Your task to perform on an android device: Show me productivity apps on the Play Store Image 0: 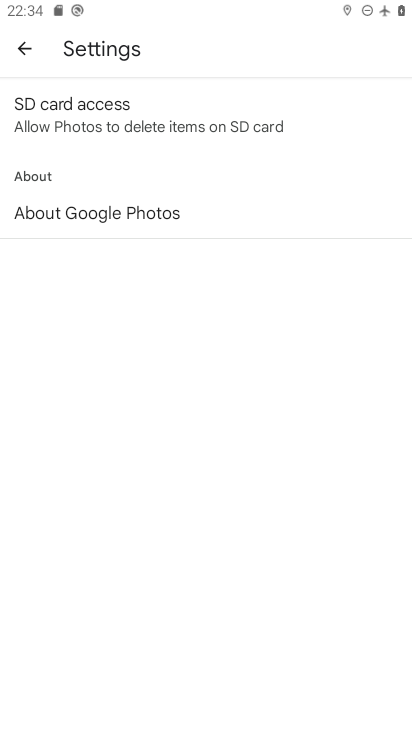
Step 0: press home button
Your task to perform on an android device: Show me productivity apps on the Play Store Image 1: 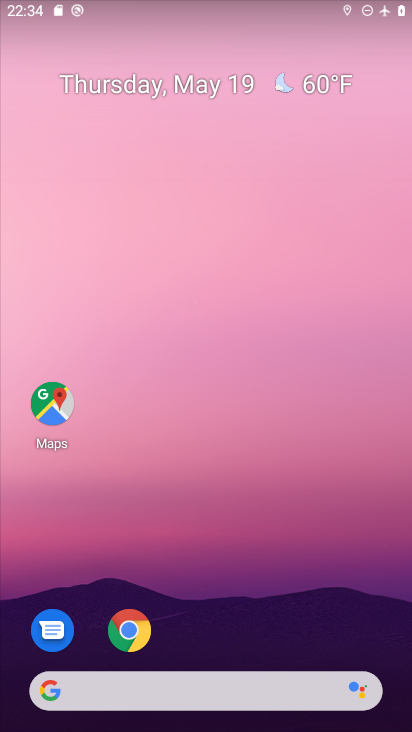
Step 1: drag from (241, 537) to (244, 3)
Your task to perform on an android device: Show me productivity apps on the Play Store Image 2: 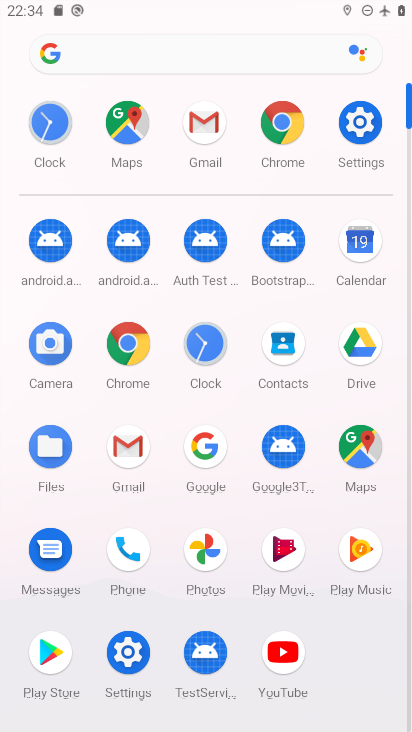
Step 2: click (52, 656)
Your task to perform on an android device: Show me productivity apps on the Play Store Image 3: 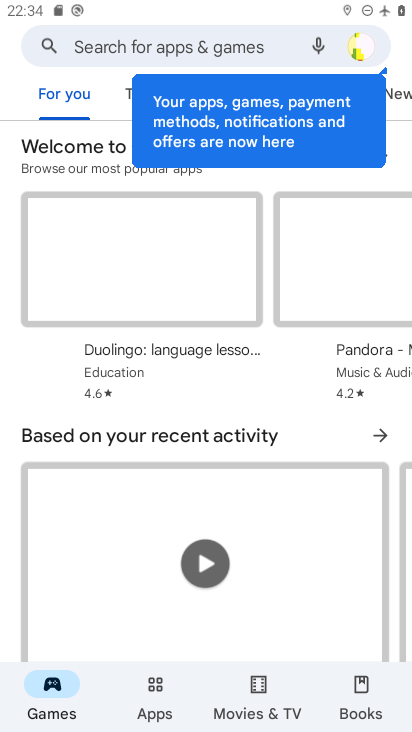
Step 3: click (146, 680)
Your task to perform on an android device: Show me productivity apps on the Play Store Image 4: 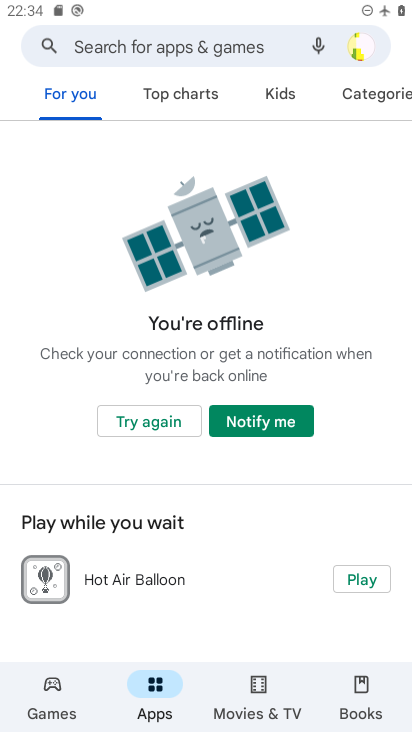
Step 4: task complete